Your task to perform on an android device: turn on bluetooth scan Image 0: 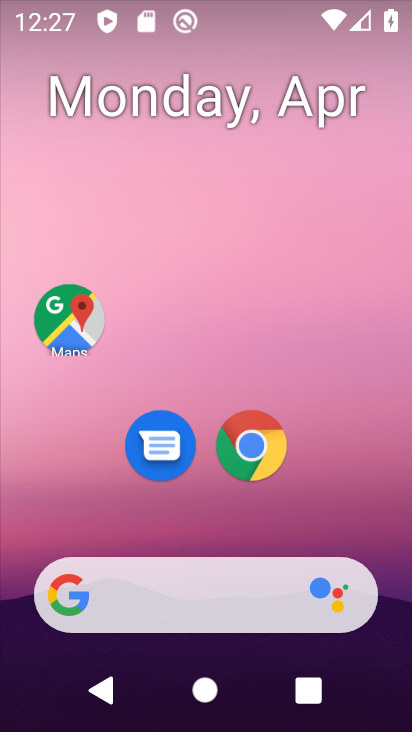
Step 0: drag from (372, 506) to (375, 133)
Your task to perform on an android device: turn on bluetooth scan Image 1: 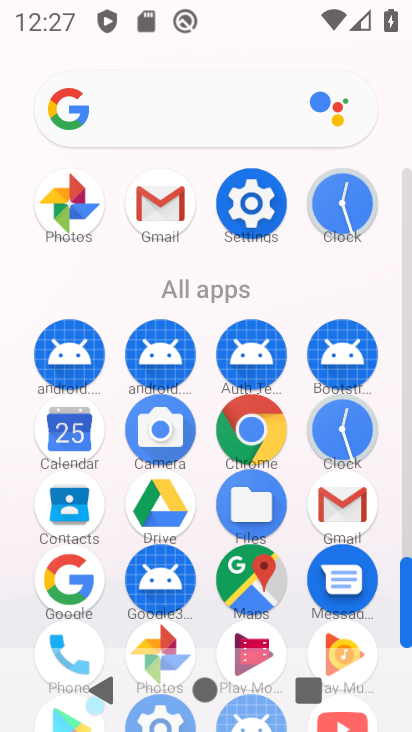
Step 1: click (258, 209)
Your task to perform on an android device: turn on bluetooth scan Image 2: 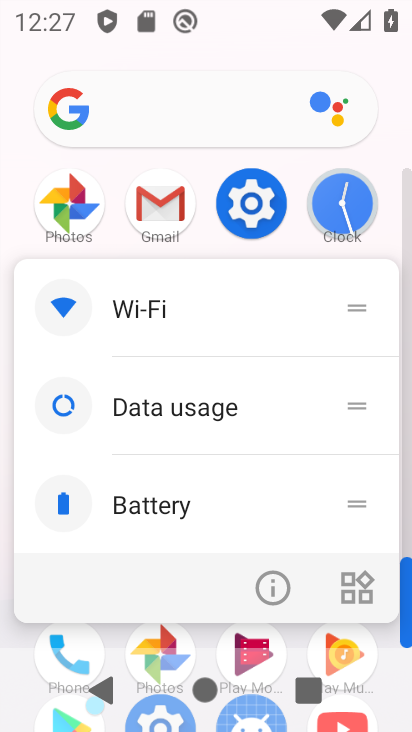
Step 2: click (258, 209)
Your task to perform on an android device: turn on bluetooth scan Image 3: 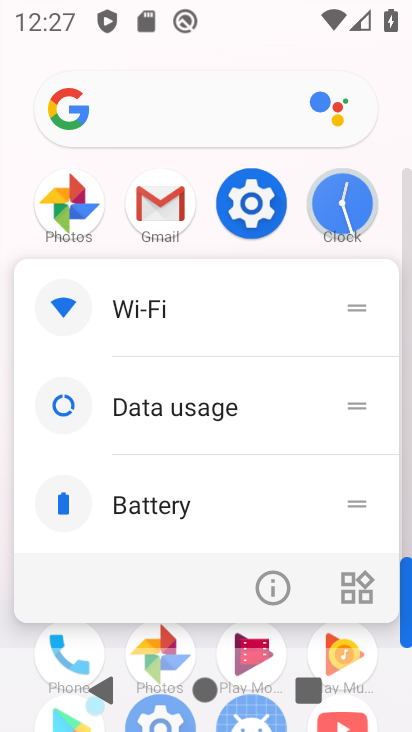
Step 3: click (260, 214)
Your task to perform on an android device: turn on bluetooth scan Image 4: 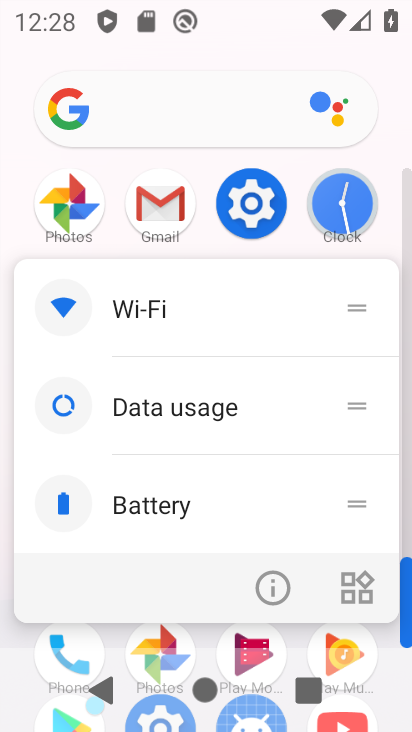
Step 4: click (250, 205)
Your task to perform on an android device: turn on bluetooth scan Image 5: 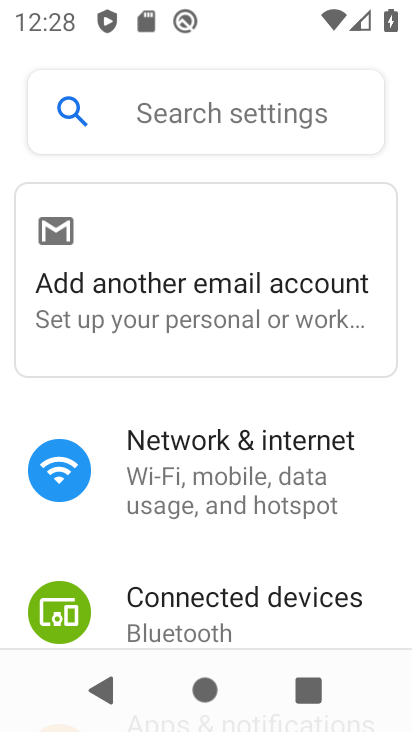
Step 5: drag from (366, 498) to (367, 192)
Your task to perform on an android device: turn on bluetooth scan Image 6: 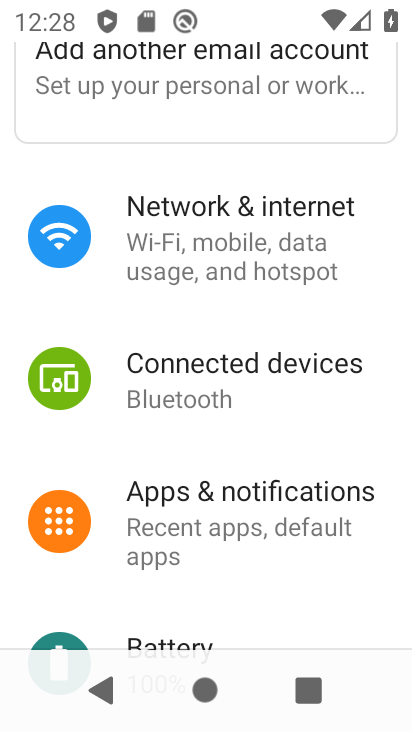
Step 6: drag from (379, 582) to (391, 407)
Your task to perform on an android device: turn on bluetooth scan Image 7: 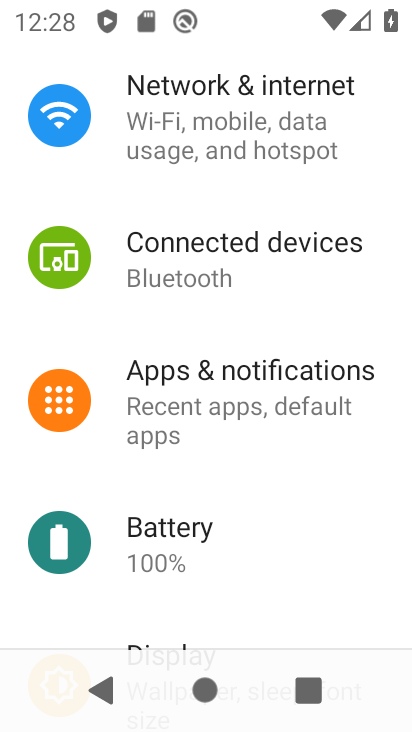
Step 7: drag from (377, 577) to (382, 304)
Your task to perform on an android device: turn on bluetooth scan Image 8: 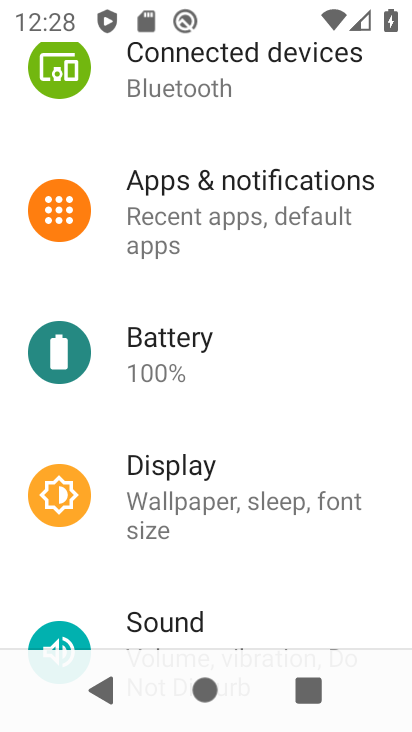
Step 8: drag from (380, 607) to (380, 332)
Your task to perform on an android device: turn on bluetooth scan Image 9: 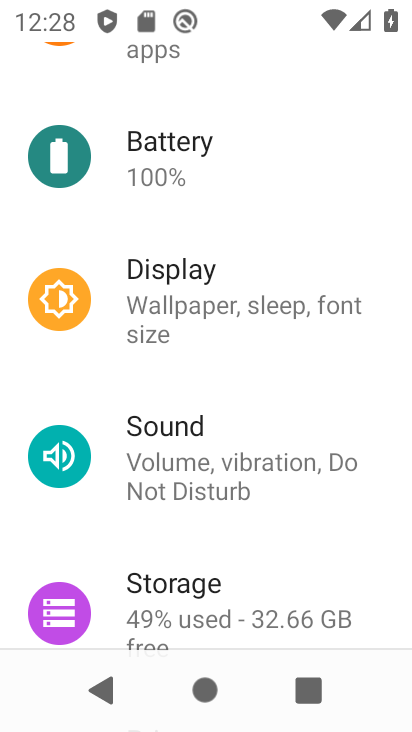
Step 9: drag from (366, 545) to (362, 290)
Your task to perform on an android device: turn on bluetooth scan Image 10: 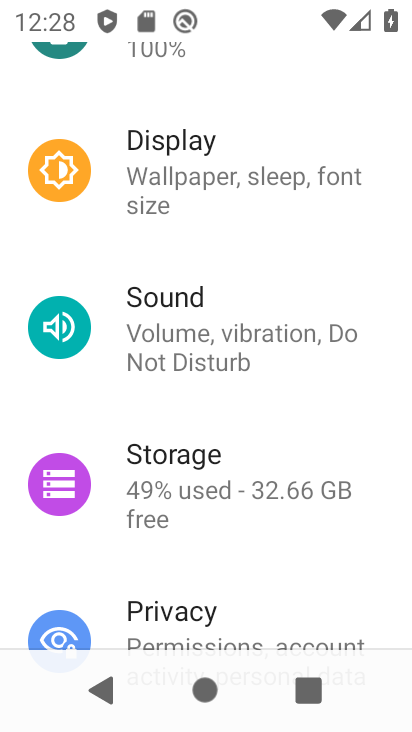
Step 10: drag from (375, 554) to (388, 266)
Your task to perform on an android device: turn on bluetooth scan Image 11: 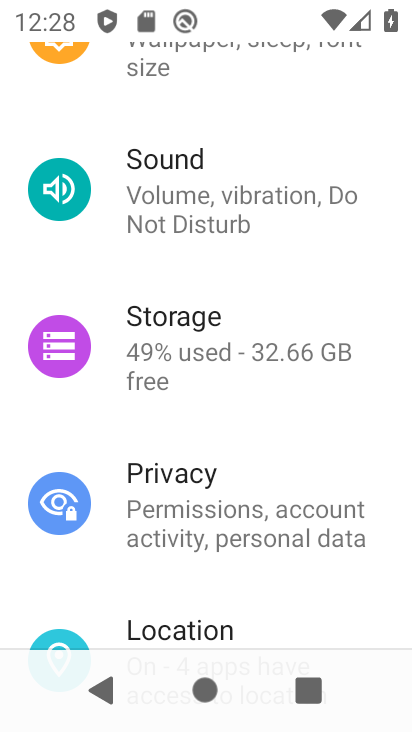
Step 11: drag from (386, 624) to (379, 309)
Your task to perform on an android device: turn on bluetooth scan Image 12: 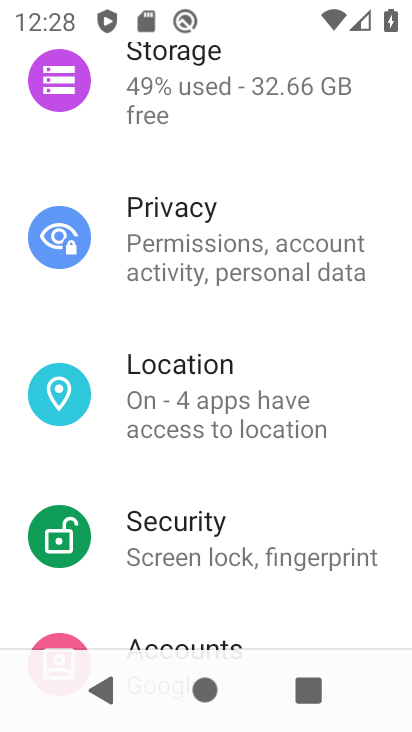
Step 12: click (288, 399)
Your task to perform on an android device: turn on bluetooth scan Image 13: 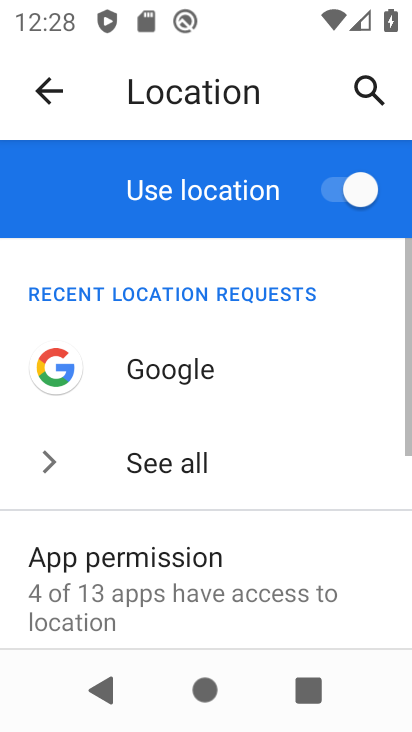
Step 13: drag from (324, 530) to (314, 327)
Your task to perform on an android device: turn on bluetooth scan Image 14: 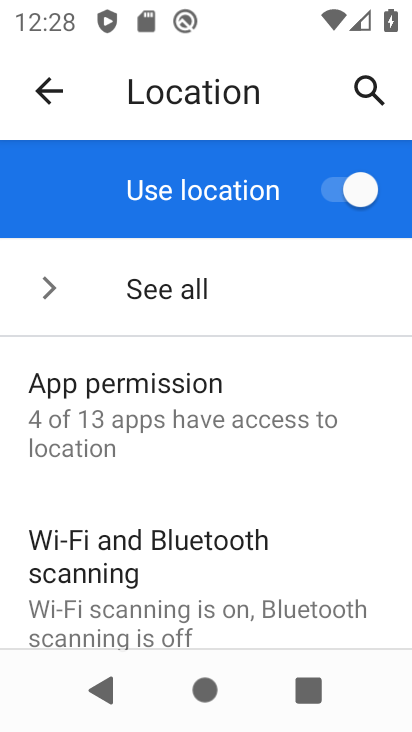
Step 14: drag from (325, 537) to (329, 329)
Your task to perform on an android device: turn on bluetooth scan Image 15: 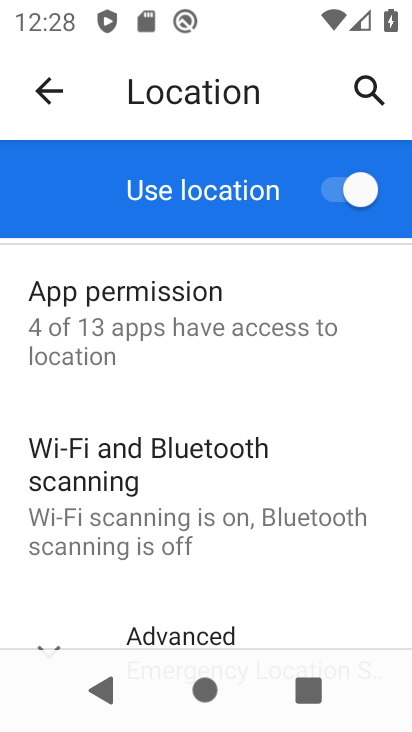
Step 15: click (320, 500)
Your task to perform on an android device: turn on bluetooth scan Image 16: 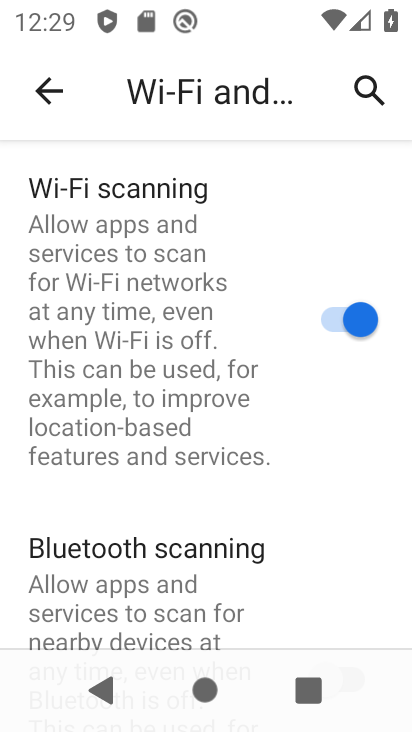
Step 16: drag from (325, 499) to (329, 229)
Your task to perform on an android device: turn on bluetooth scan Image 17: 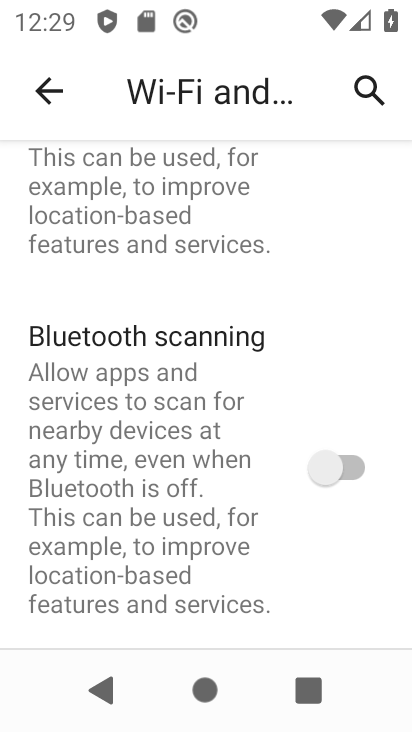
Step 17: click (333, 480)
Your task to perform on an android device: turn on bluetooth scan Image 18: 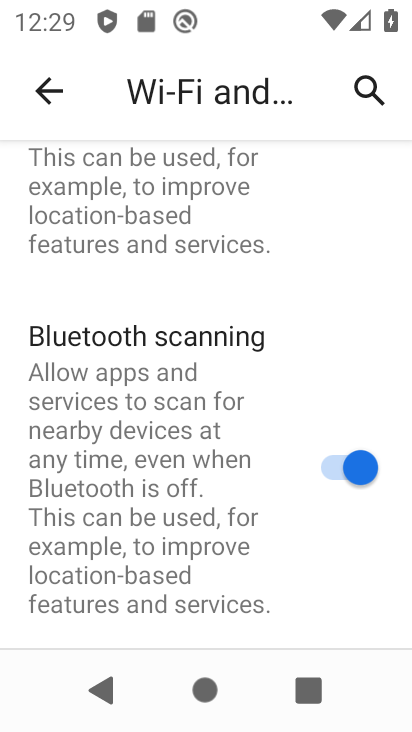
Step 18: task complete